Your task to perform on an android device: Open ESPN.com Image 0: 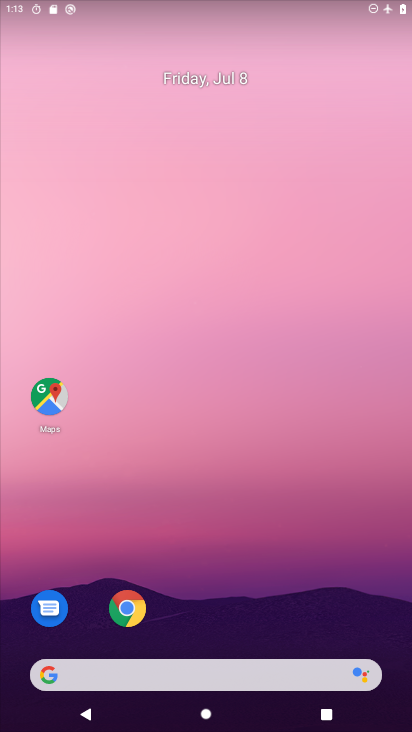
Step 0: drag from (256, 713) to (247, 101)
Your task to perform on an android device: Open ESPN.com Image 1: 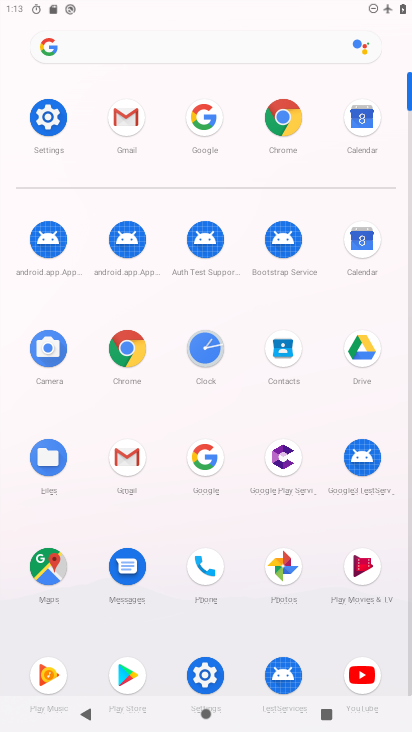
Step 1: click (282, 120)
Your task to perform on an android device: Open ESPN.com Image 2: 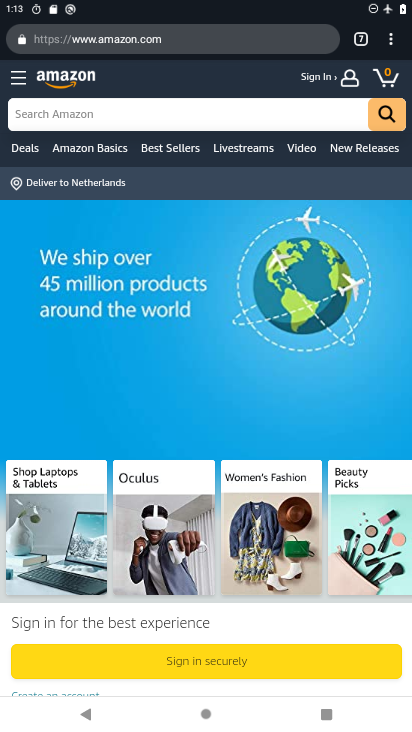
Step 2: click (392, 45)
Your task to perform on an android device: Open ESPN.com Image 3: 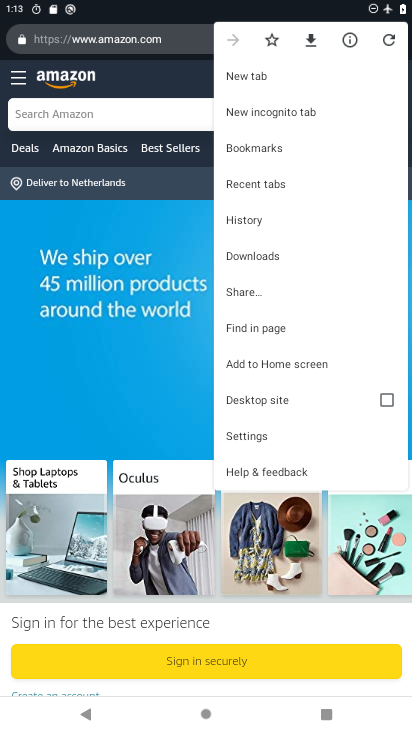
Step 3: click (256, 73)
Your task to perform on an android device: Open ESPN.com Image 4: 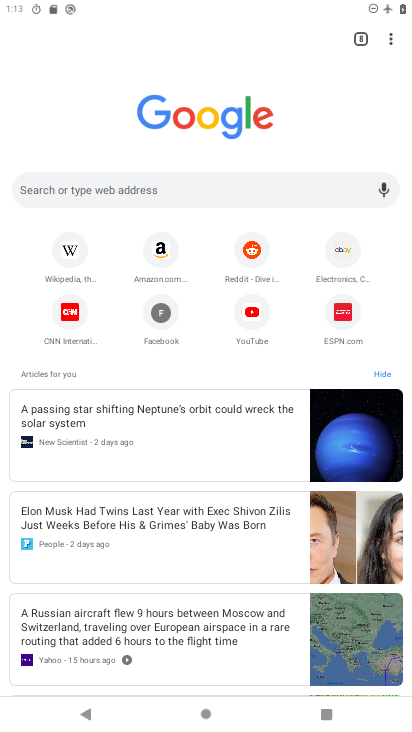
Step 4: click (342, 310)
Your task to perform on an android device: Open ESPN.com Image 5: 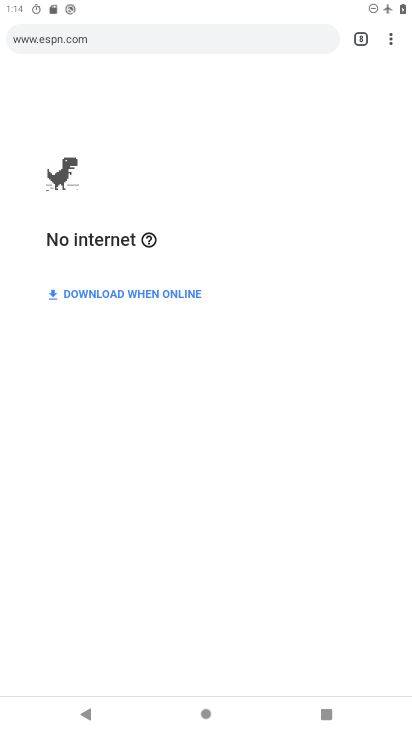
Step 5: task complete